Your task to perform on an android device: Show the shopping cart on target.com. Image 0: 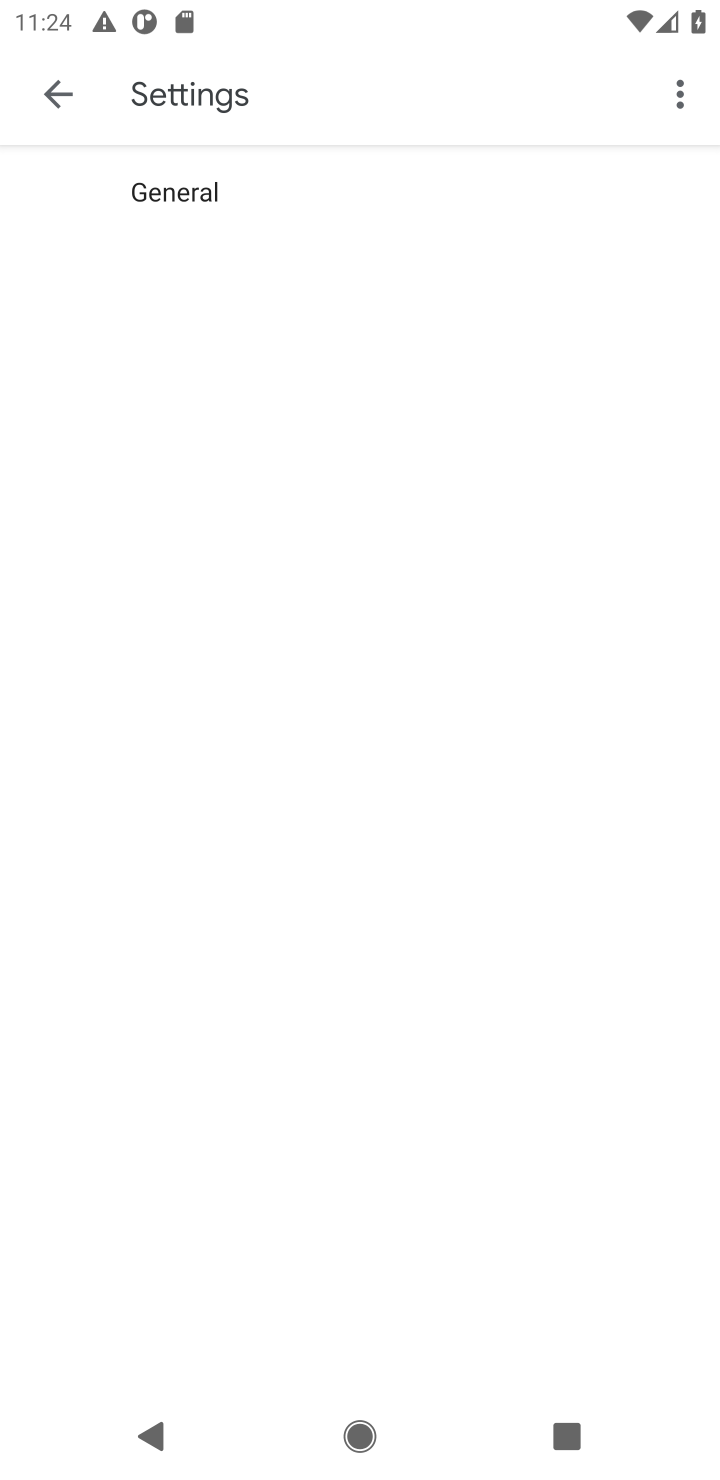
Step 0: press home button
Your task to perform on an android device: Show the shopping cart on target.com. Image 1: 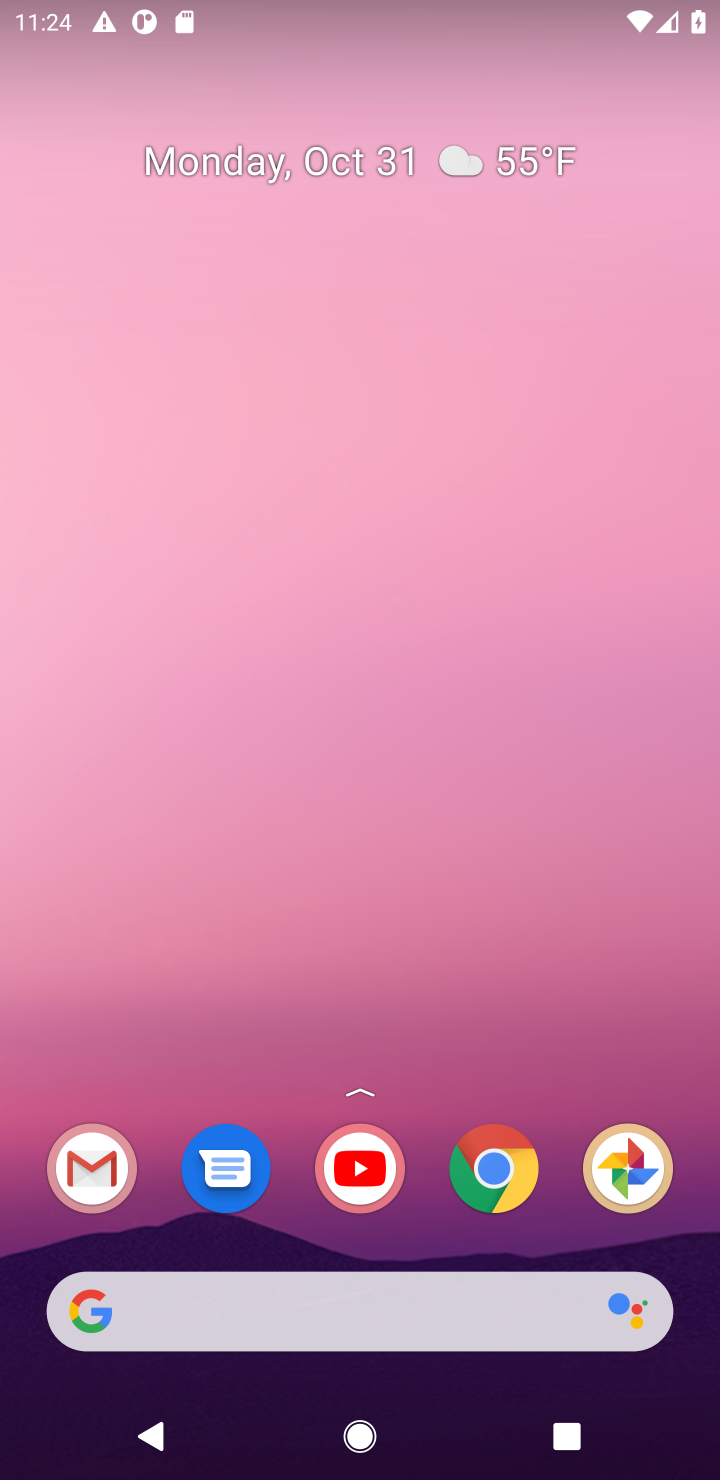
Step 1: click (497, 1174)
Your task to perform on an android device: Show the shopping cart on target.com. Image 2: 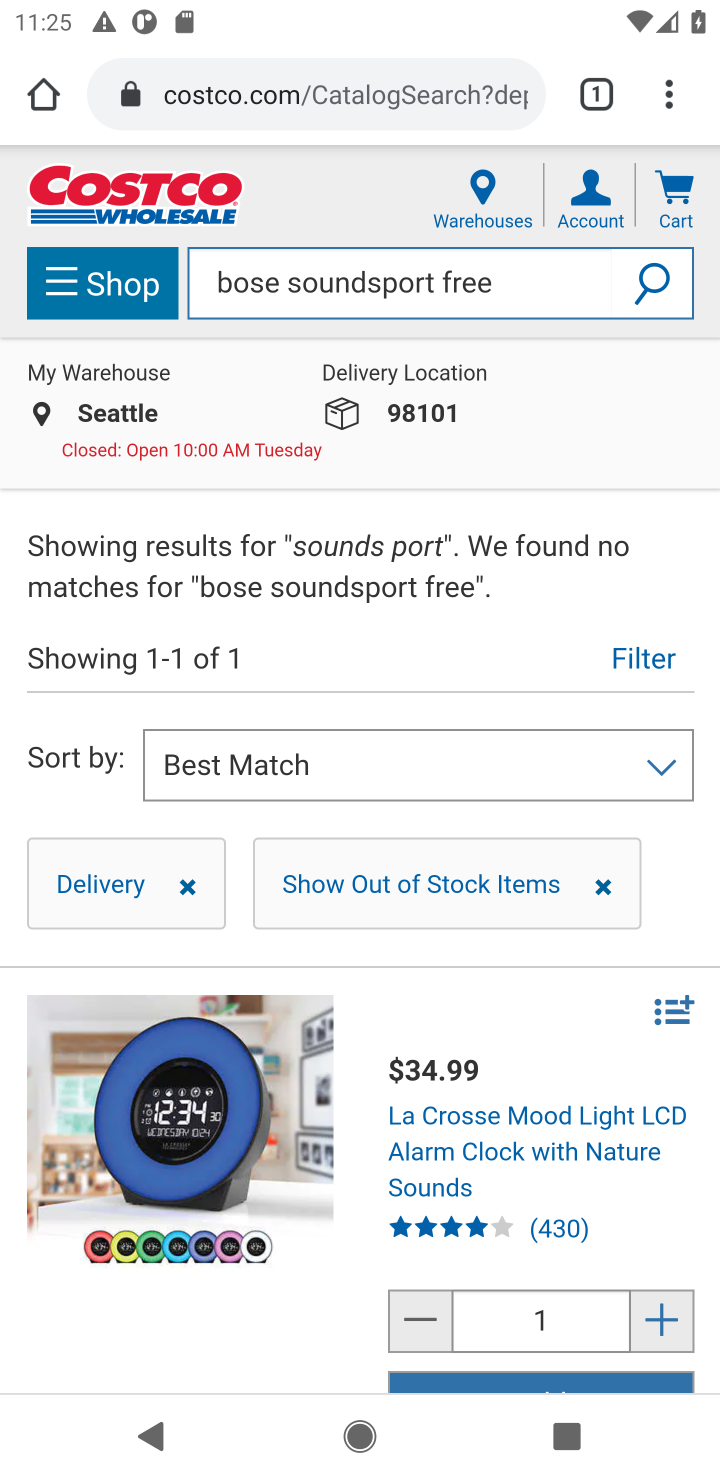
Step 2: press home button
Your task to perform on an android device: Show the shopping cart on target.com. Image 3: 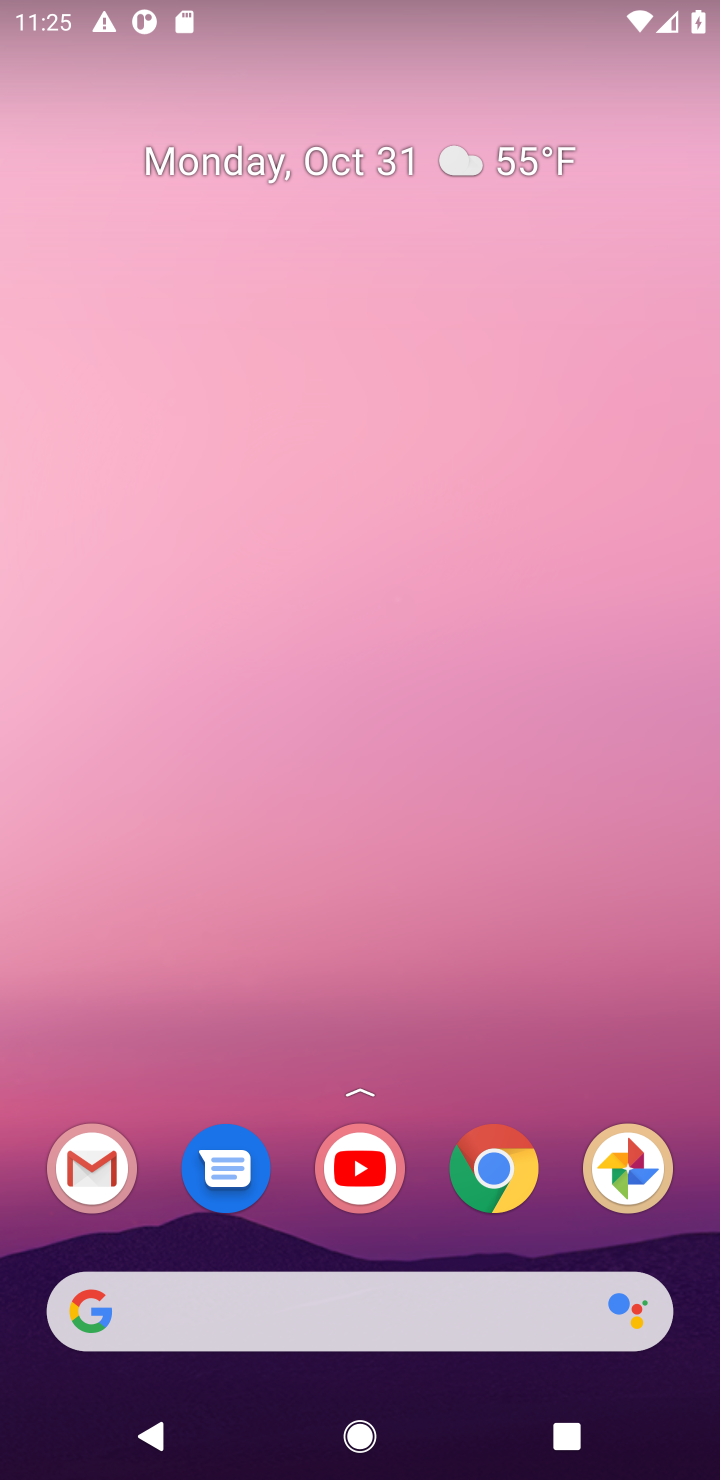
Step 3: click (502, 1167)
Your task to perform on an android device: Show the shopping cart on target.com. Image 4: 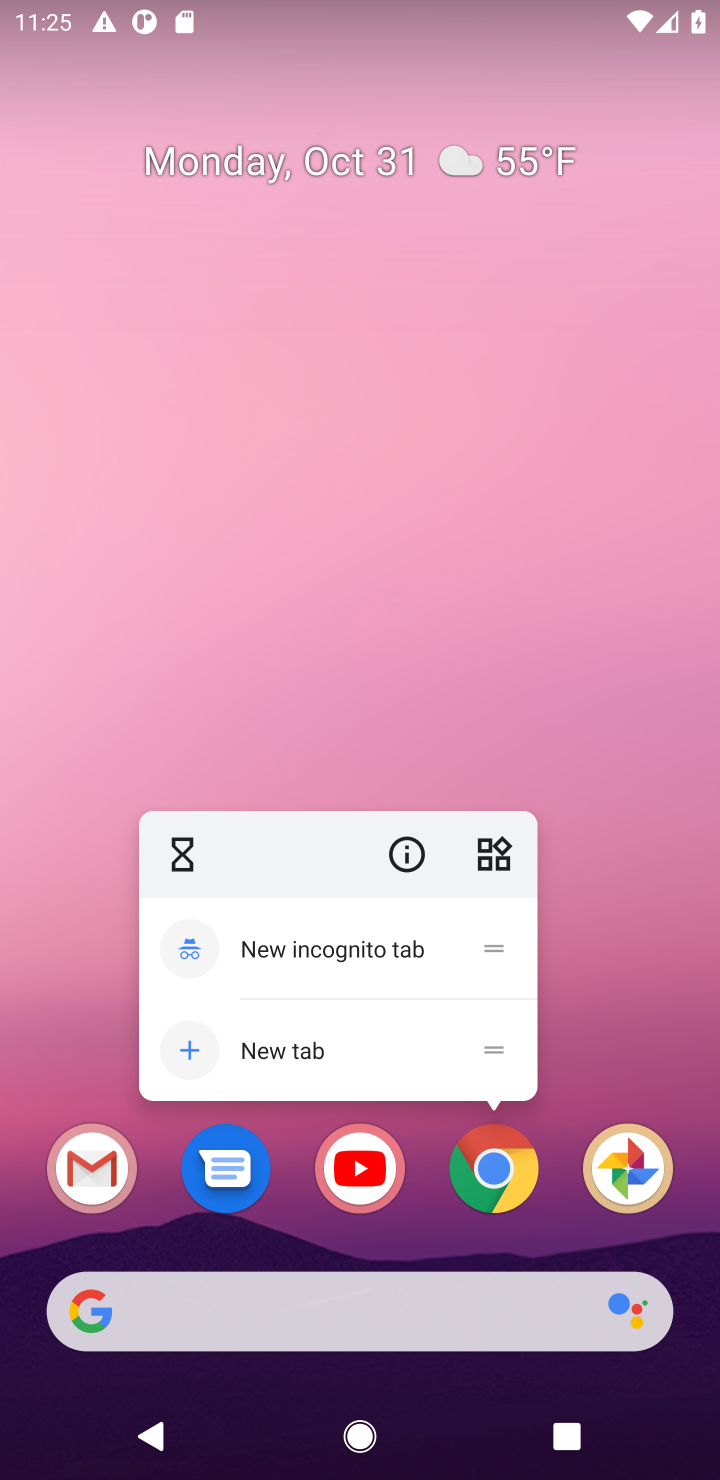
Step 4: click (495, 1166)
Your task to perform on an android device: Show the shopping cart on target.com. Image 5: 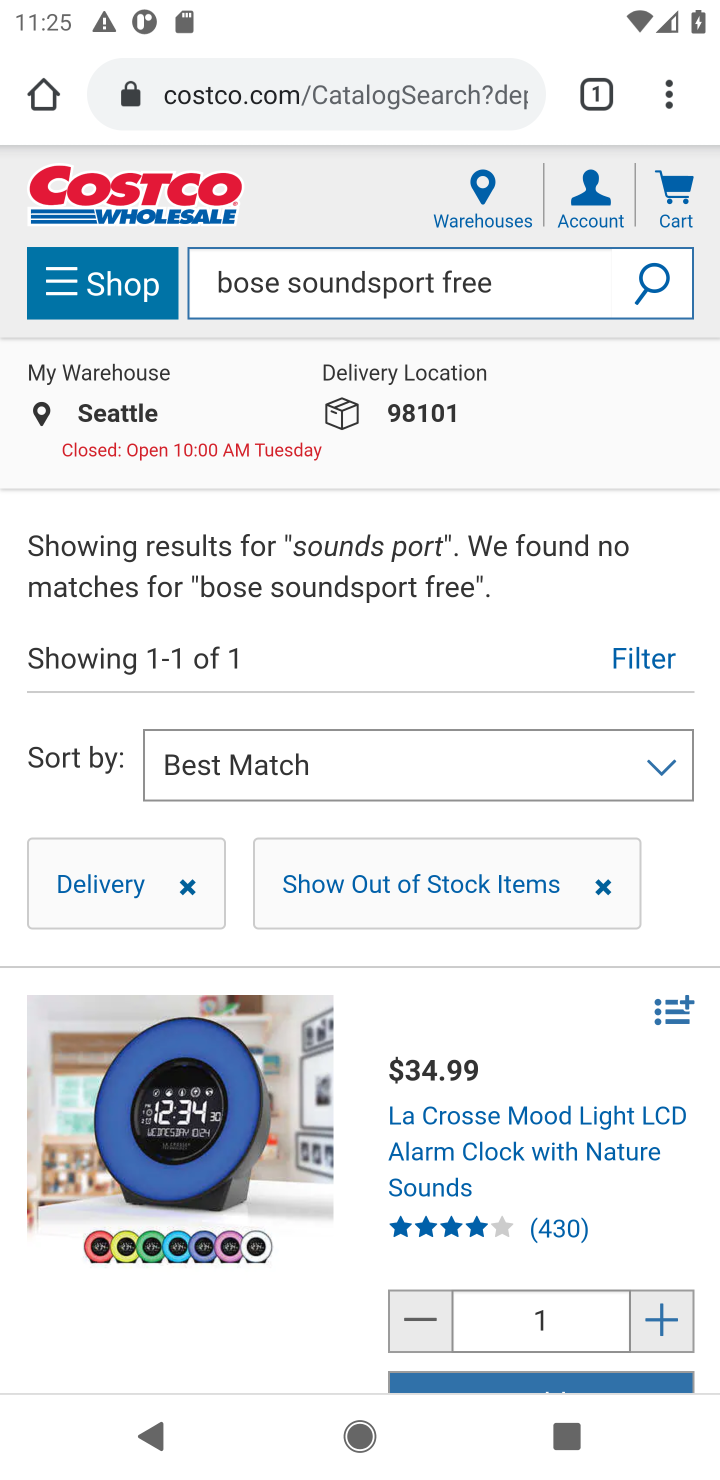
Step 5: click (387, 101)
Your task to perform on an android device: Show the shopping cart on target.com. Image 6: 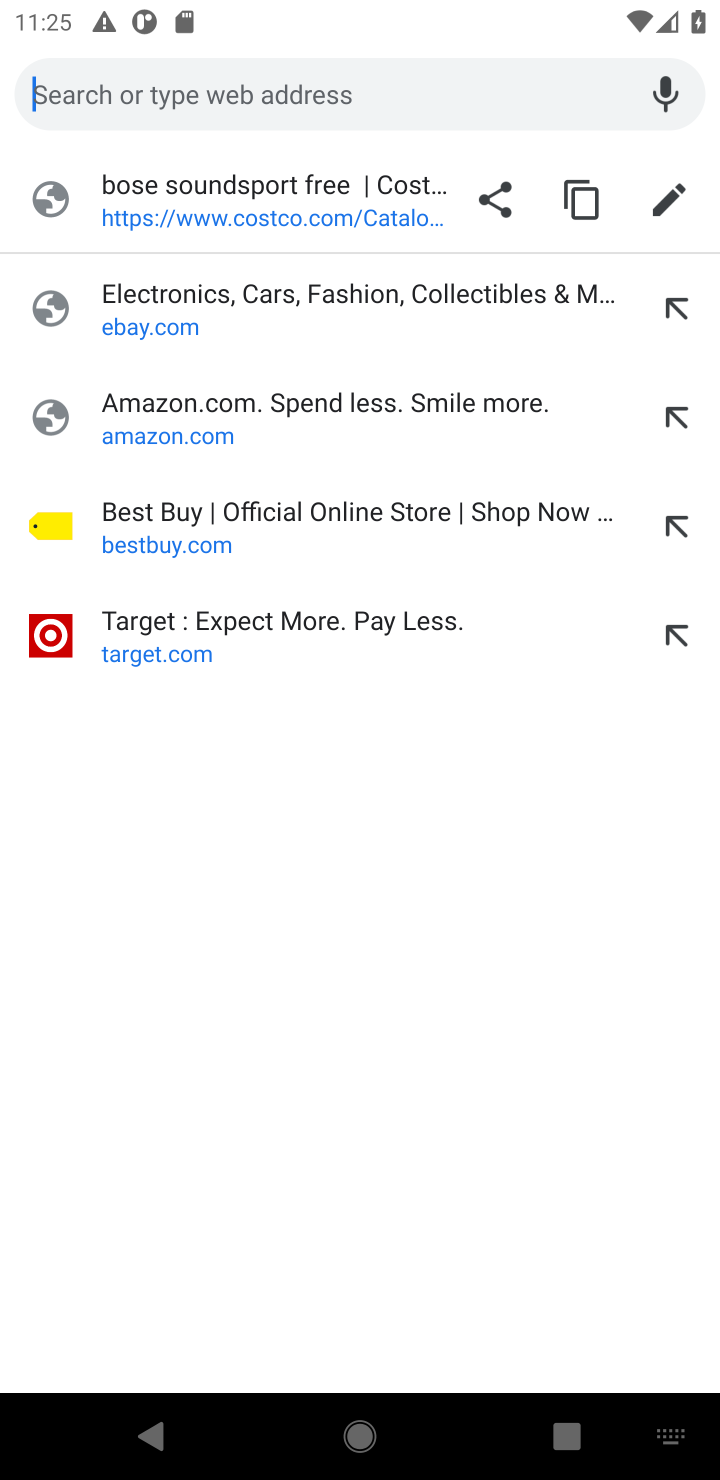
Step 6: type "target.com"
Your task to perform on an android device: Show the shopping cart on target.com. Image 7: 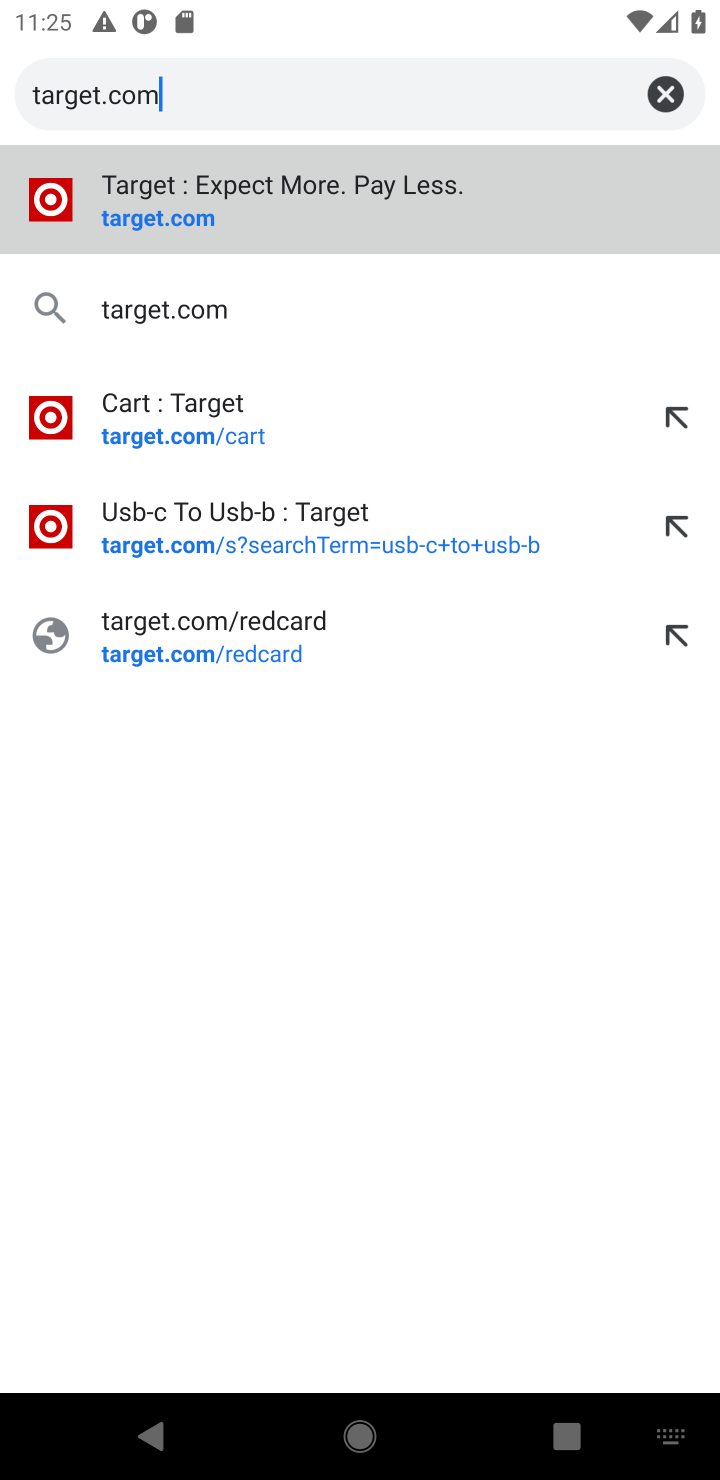
Step 7: click (283, 187)
Your task to perform on an android device: Show the shopping cart on target.com. Image 8: 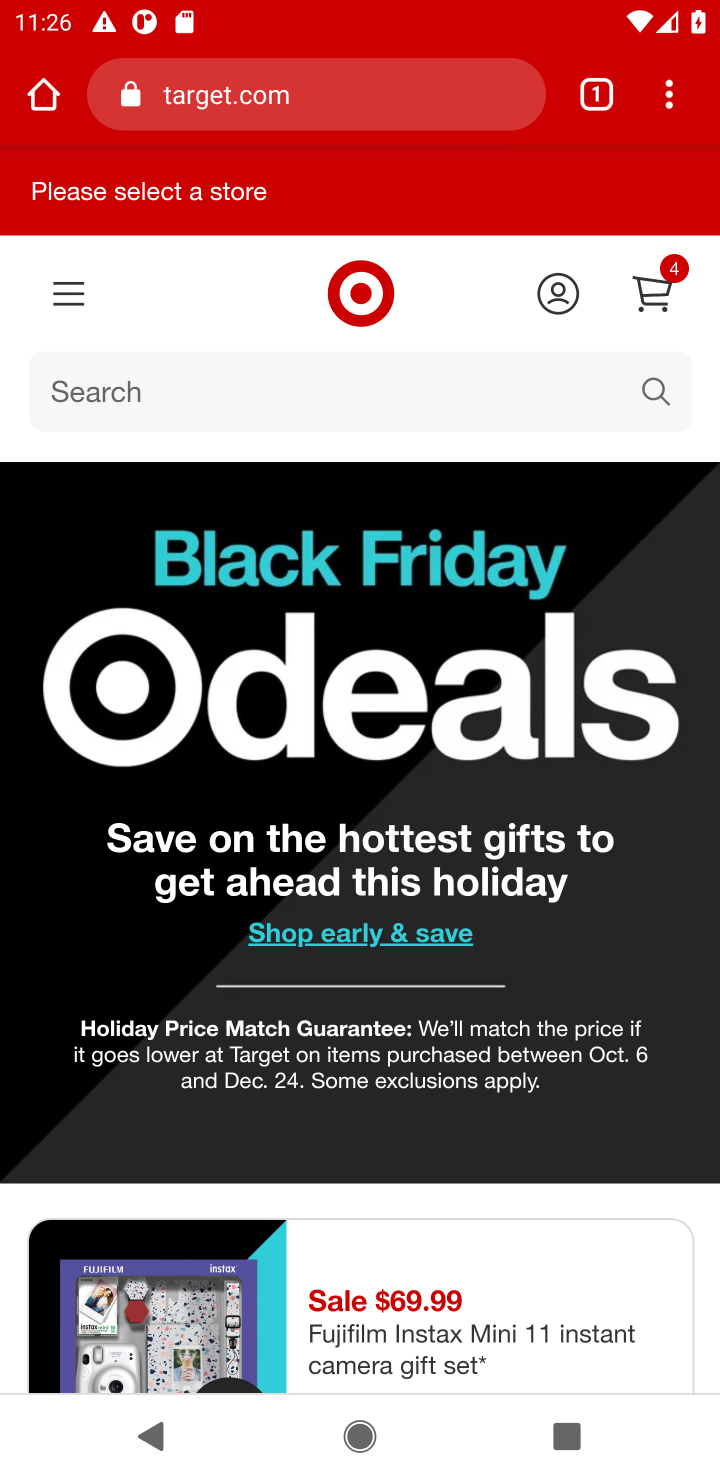
Step 8: click (483, 1187)
Your task to perform on an android device: Show the shopping cart on target.com. Image 9: 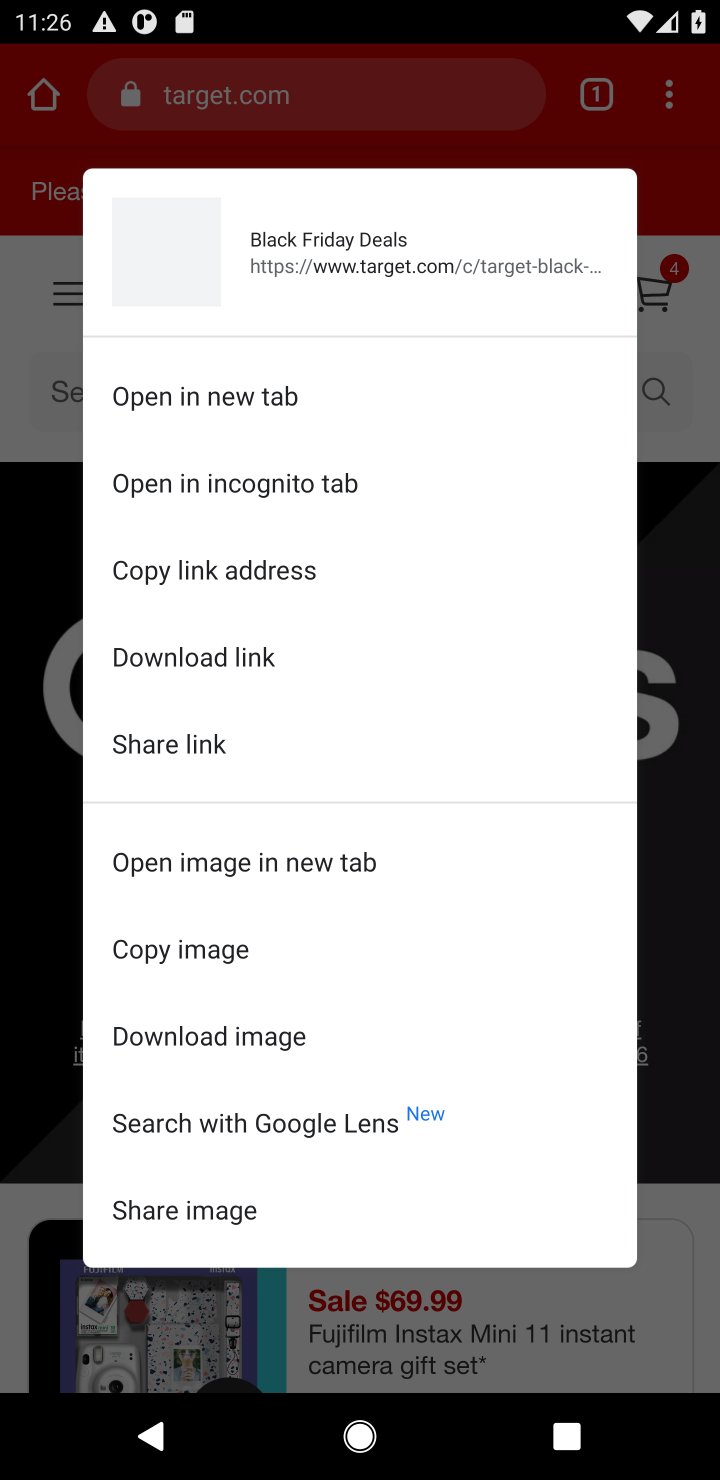
Step 9: click (662, 296)
Your task to perform on an android device: Show the shopping cart on target.com. Image 10: 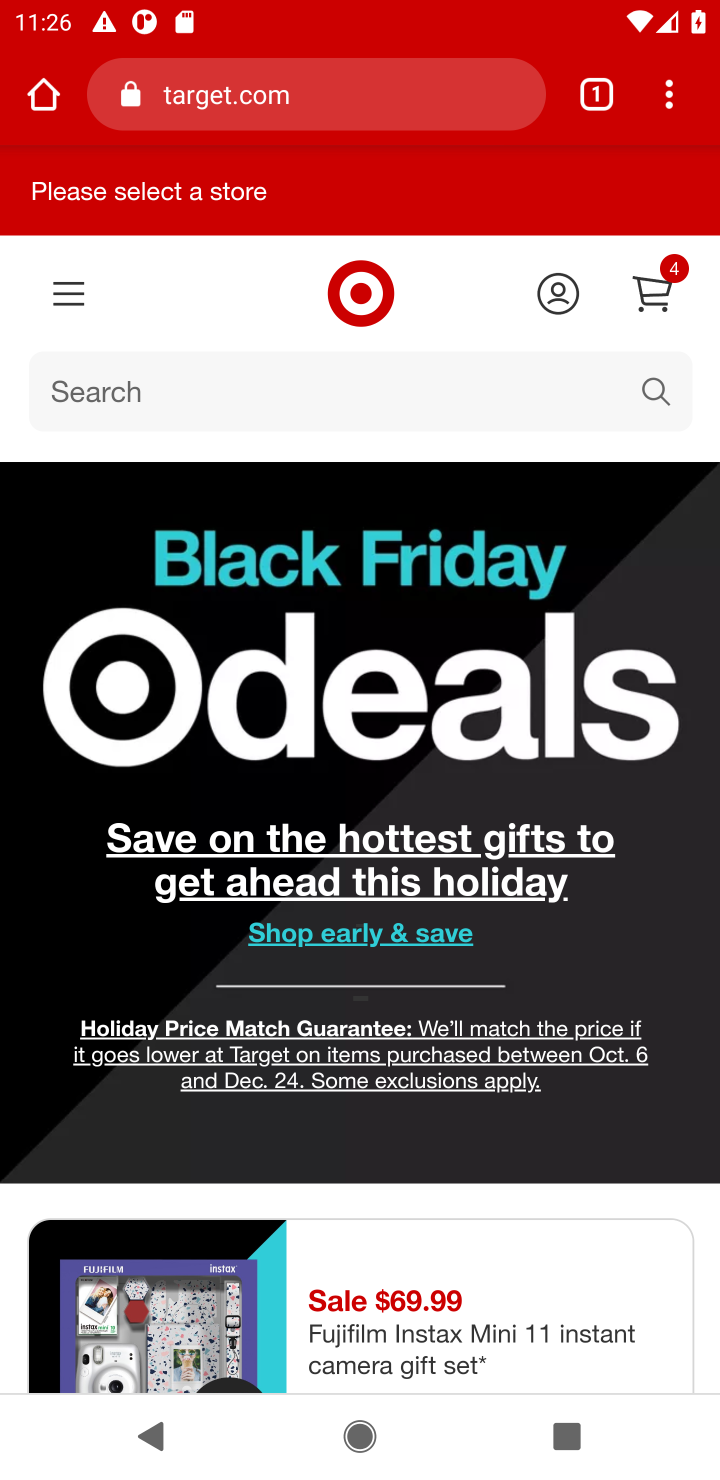
Step 10: click (662, 296)
Your task to perform on an android device: Show the shopping cart on target.com. Image 11: 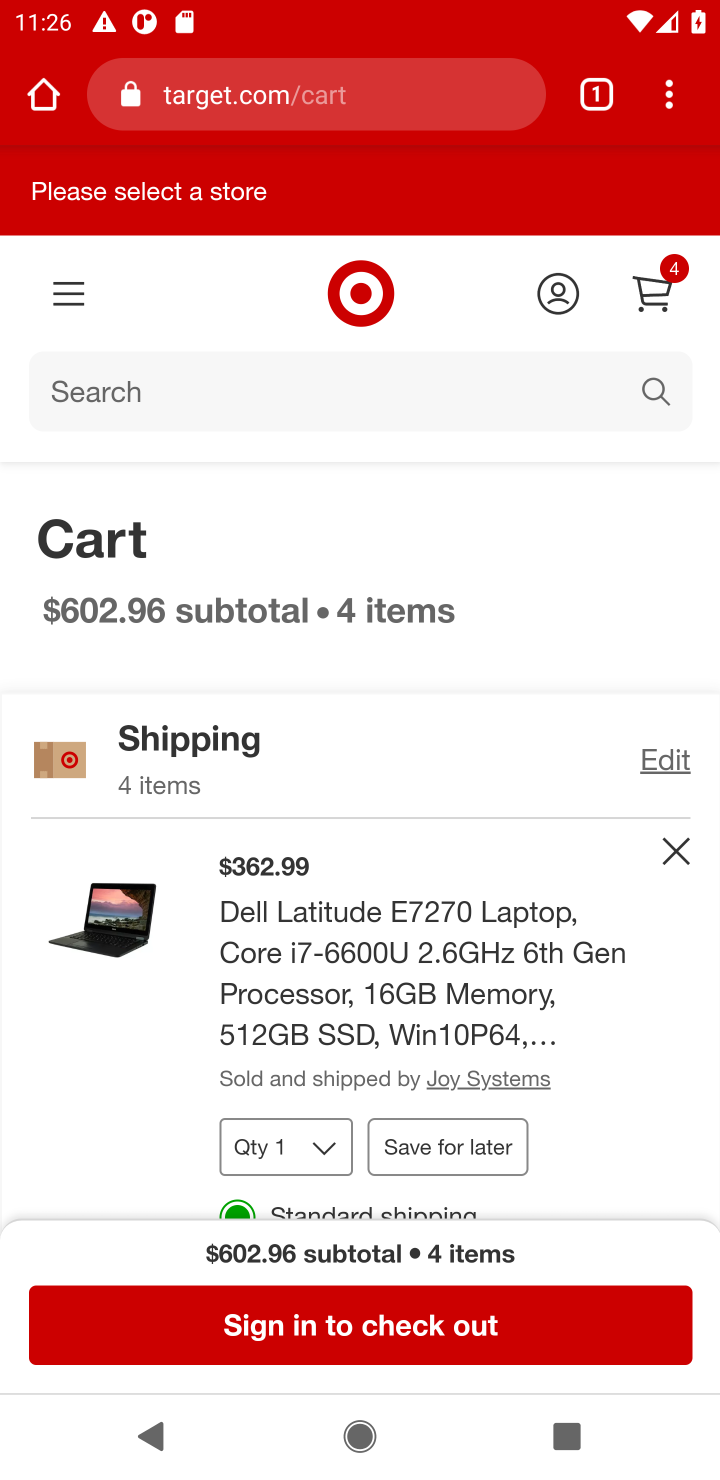
Step 11: task complete